Your task to perform on an android device: Clear all items from cart on amazon. Add "usb-a to usb-b" to the cart on amazon, then select checkout. Image 0: 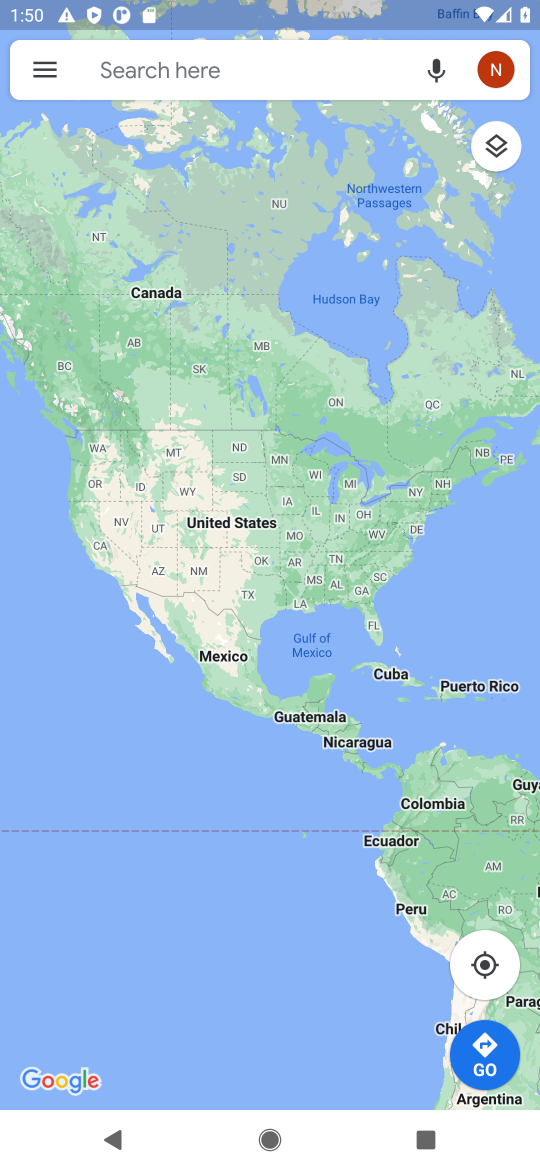
Step 0: press home button
Your task to perform on an android device: Clear all items from cart on amazon. Add "usb-a to usb-b" to the cart on amazon, then select checkout. Image 1: 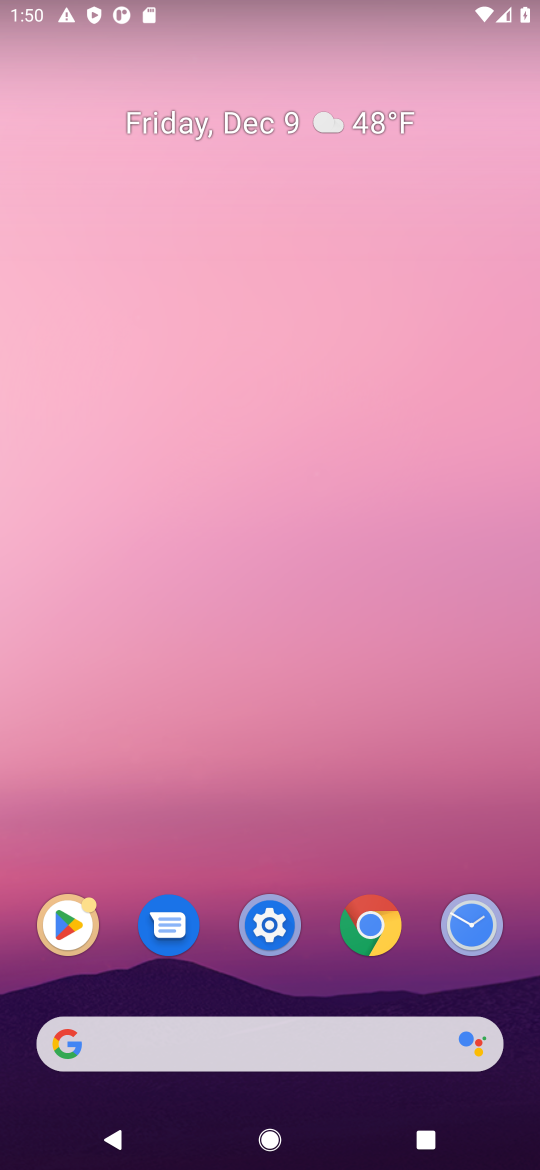
Step 1: click (348, 1062)
Your task to perform on an android device: Clear all items from cart on amazon. Add "usb-a to usb-b" to the cart on amazon, then select checkout. Image 2: 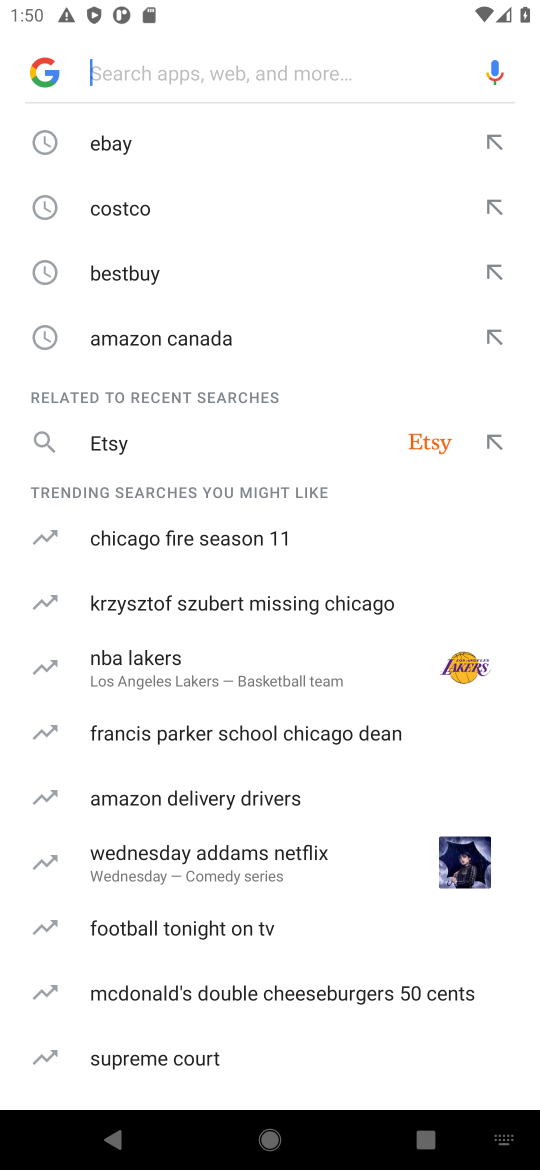
Step 2: type "usb-a to usb-b"
Your task to perform on an android device: Clear all items from cart on amazon. Add "usb-a to usb-b" to the cart on amazon, then select checkout. Image 3: 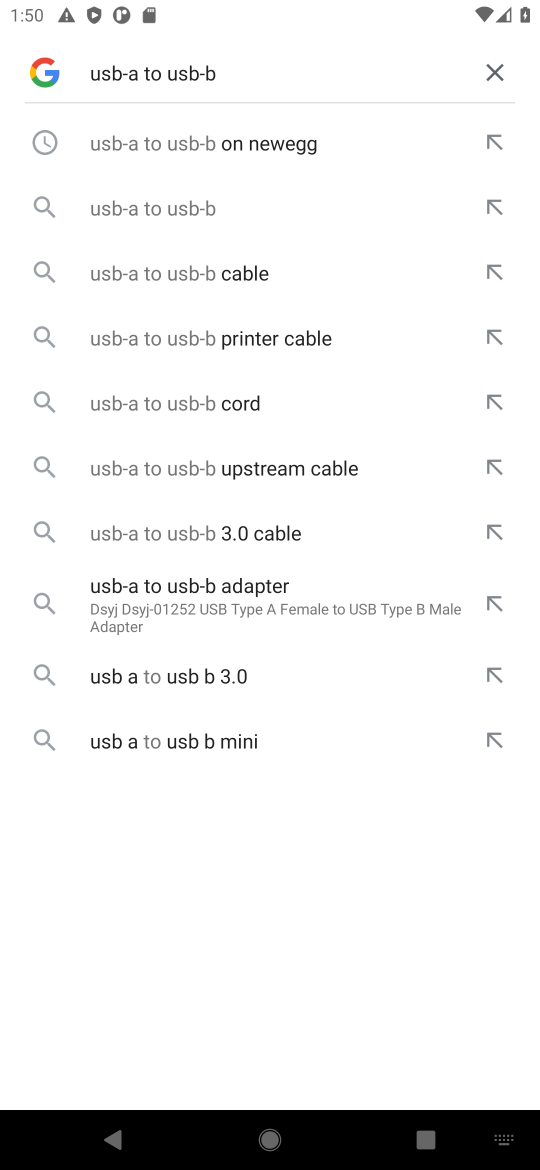
Step 3: click (309, 151)
Your task to perform on an android device: Clear all items from cart on amazon. Add "usb-a to usb-b" to the cart on amazon, then select checkout. Image 4: 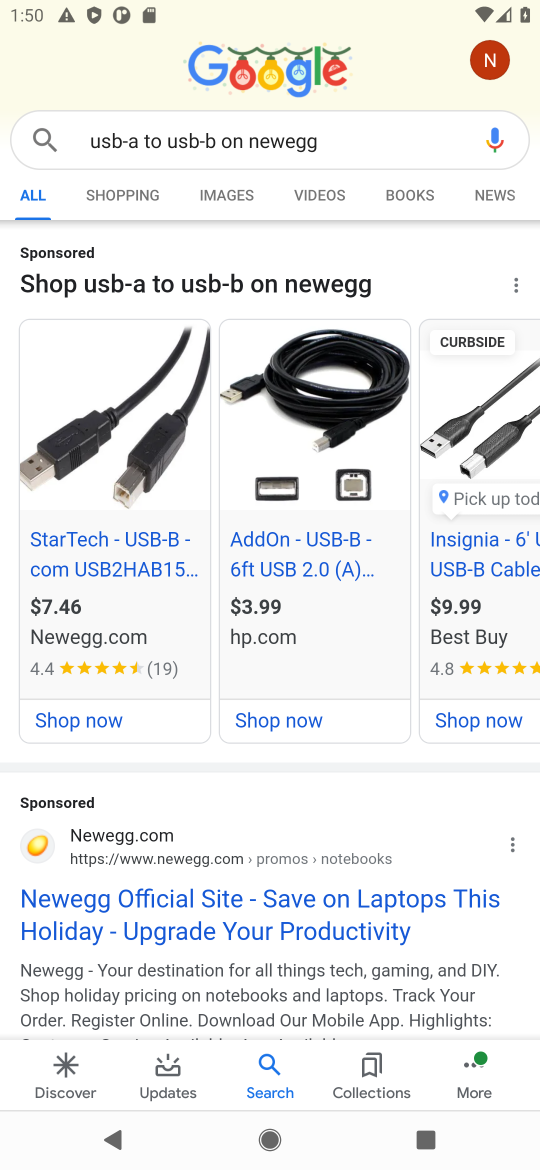
Step 4: click (237, 932)
Your task to perform on an android device: Clear all items from cart on amazon. Add "usb-a to usb-b" to the cart on amazon, then select checkout. Image 5: 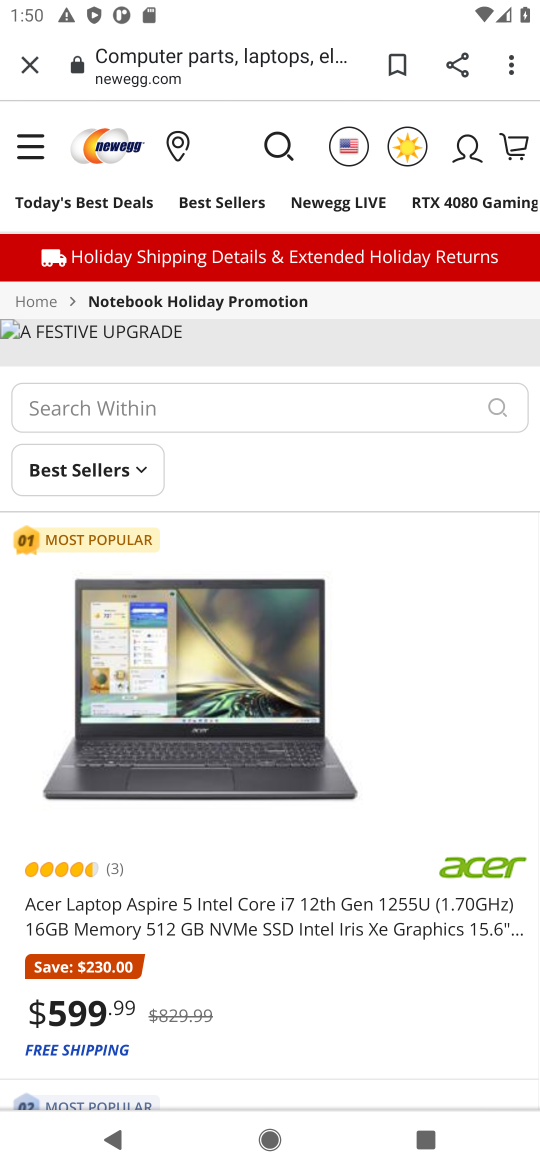
Step 5: drag from (242, 882) to (186, 279)
Your task to perform on an android device: Clear all items from cart on amazon. Add "usb-a to usb-b" to the cart on amazon, then select checkout. Image 6: 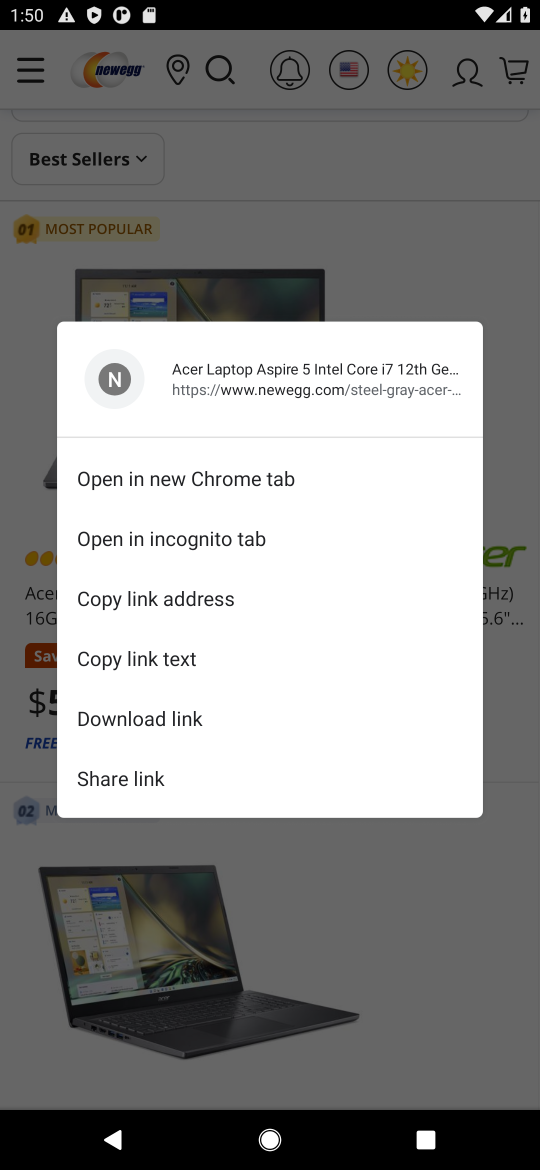
Step 6: click (370, 872)
Your task to perform on an android device: Clear all items from cart on amazon. Add "usb-a to usb-b" to the cart on amazon, then select checkout. Image 7: 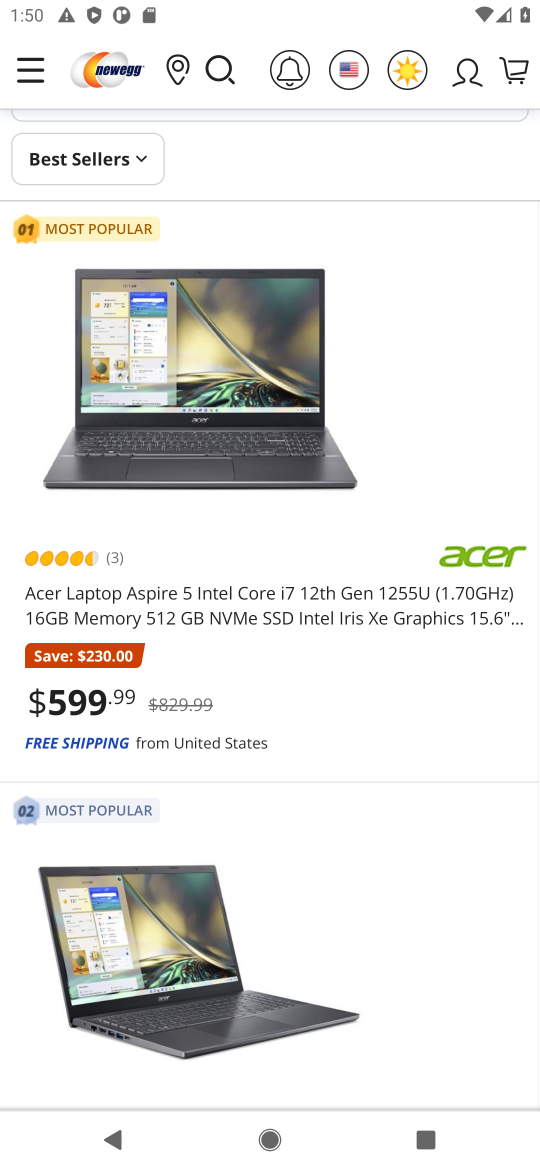
Step 7: task complete